Your task to perform on an android device: open app "VLC for Android" (install if not already installed) Image 0: 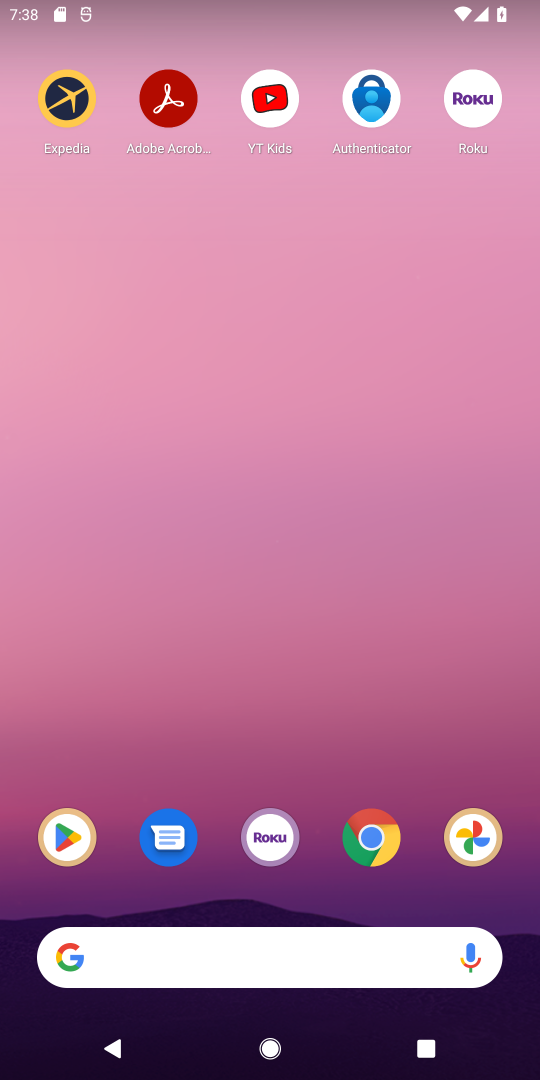
Step 0: press home button
Your task to perform on an android device: open app "VLC for Android" (install if not already installed) Image 1: 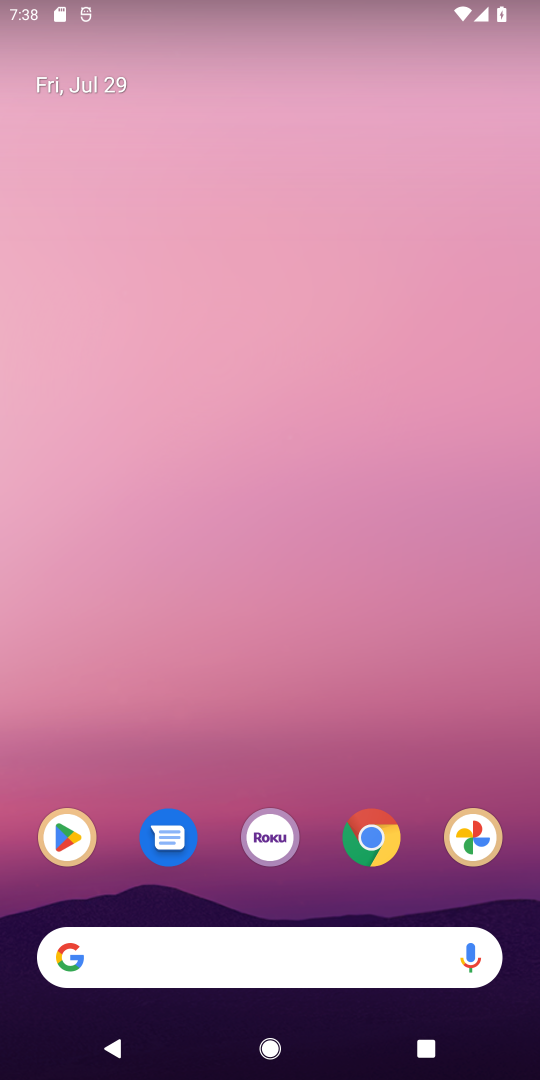
Step 1: click (72, 850)
Your task to perform on an android device: open app "VLC for Android" (install if not already installed) Image 2: 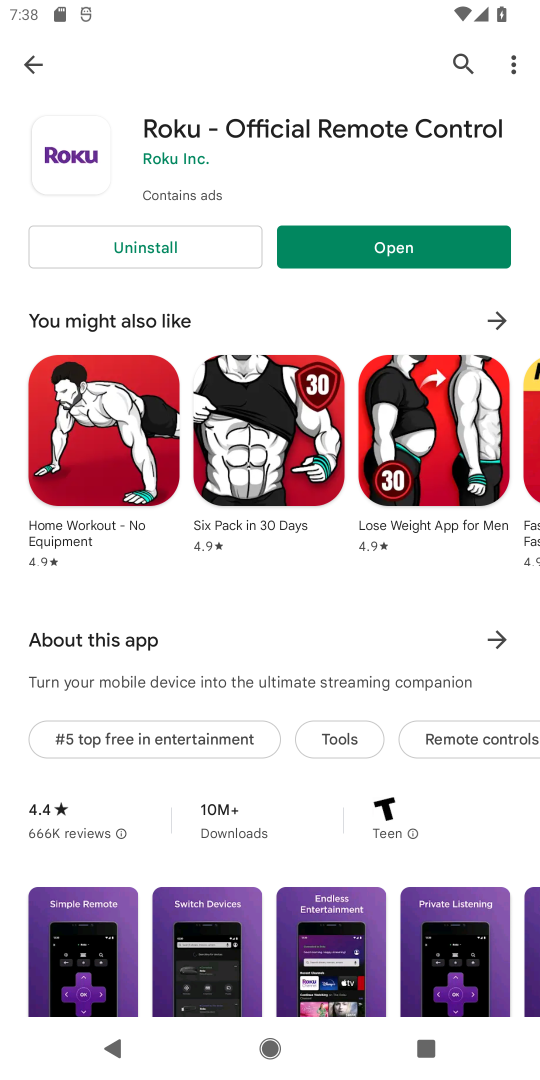
Step 2: click (468, 61)
Your task to perform on an android device: open app "VLC for Android" (install if not already installed) Image 3: 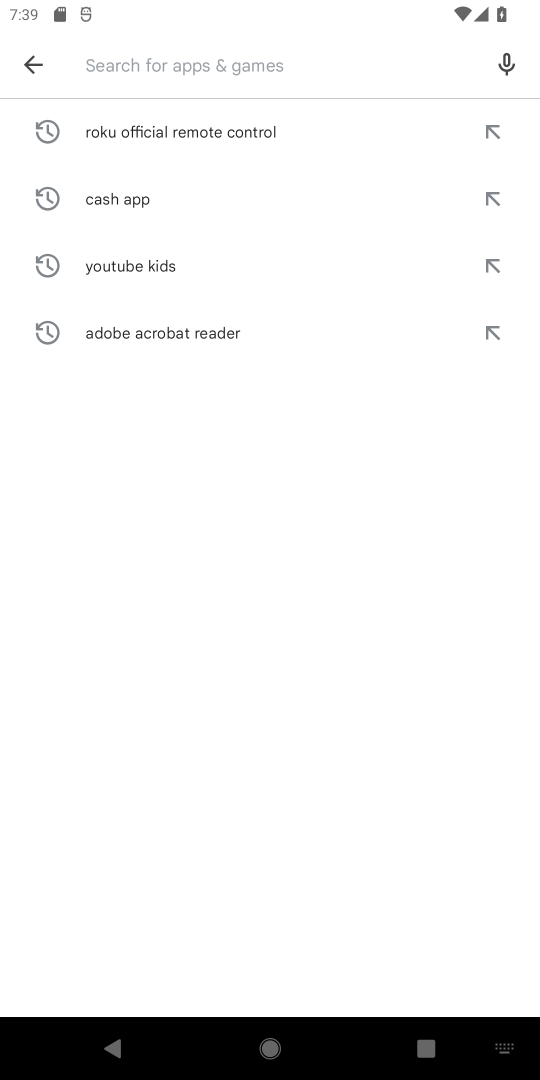
Step 3: type "VLC for Android"
Your task to perform on an android device: open app "VLC for Android" (install if not already installed) Image 4: 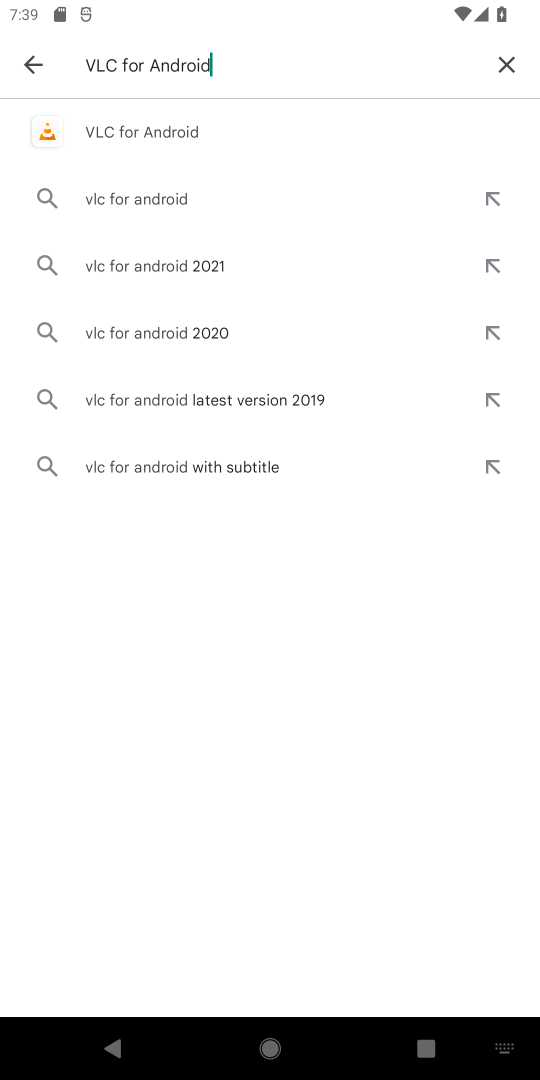
Step 4: click (201, 132)
Your task to perform on an android device: open app "VLC for Android" (install if not already installed) Image 5: 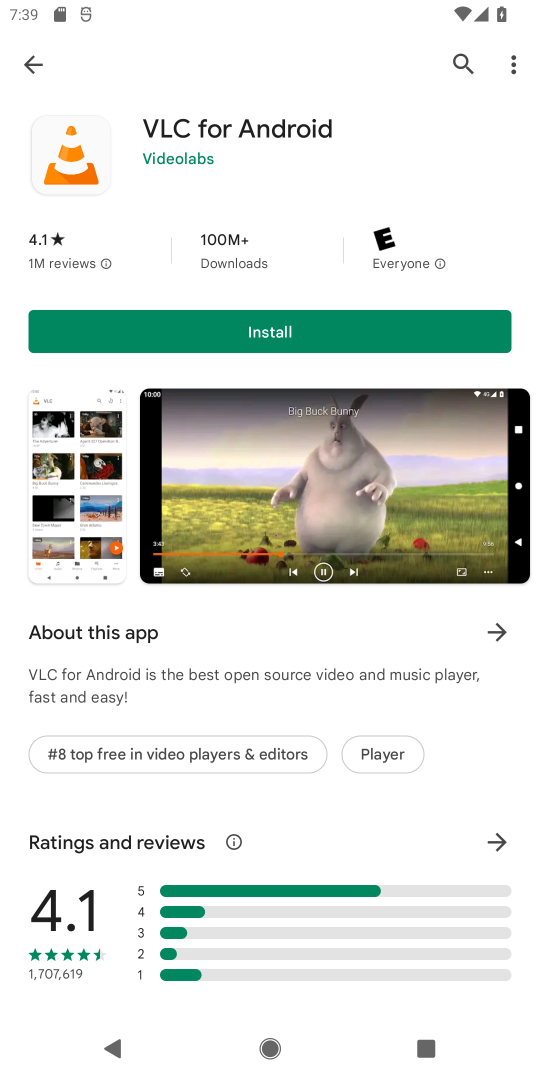
Step 5: click (288, 341)
Your task to perform on an android device: open app "VLC for Android" (install if not already installed) Image 6: 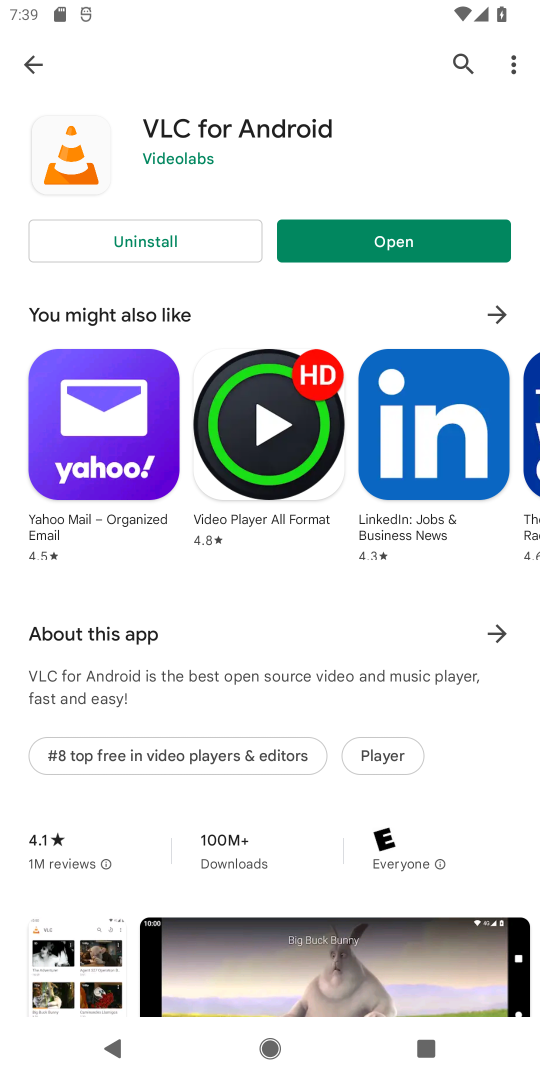
Step 6: click (477, 243)
Your task to perform on an android device: open app "VLC for Android" (install if not already installed) Image 7: 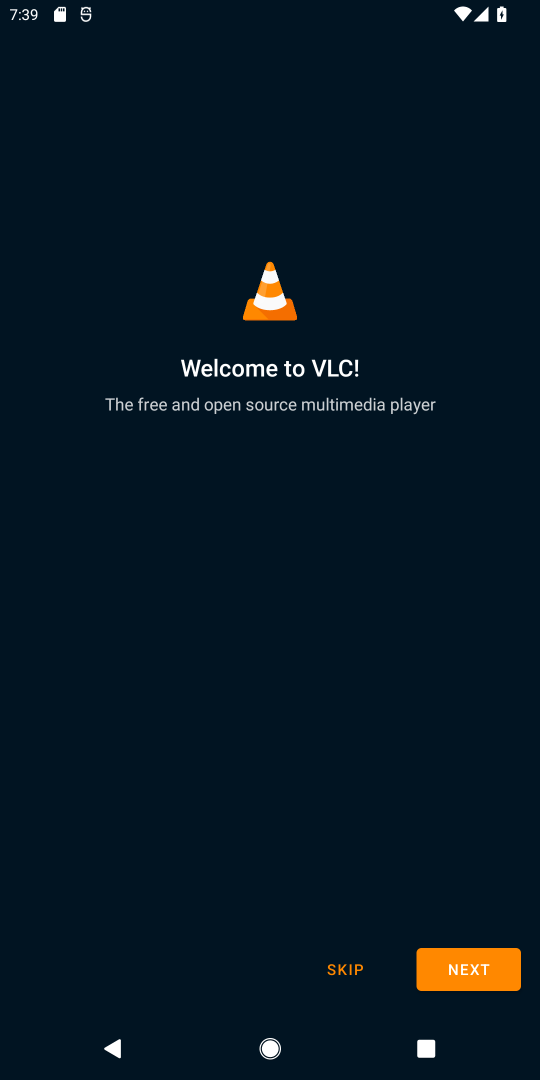
Step 7: task complete